Your task to perform on an android device: Check the news Image 0: 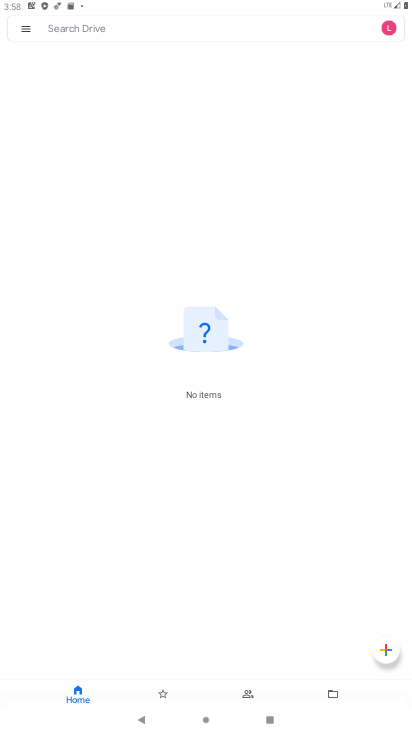
Step 0: press home button
Your task to perform on an android device: Check the news Image 1: 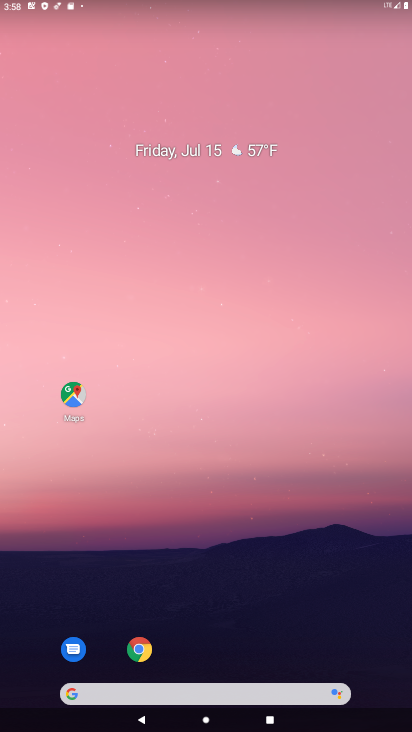
Step 1: task complete